Your task to perform on an android device: check data usage Image 0: 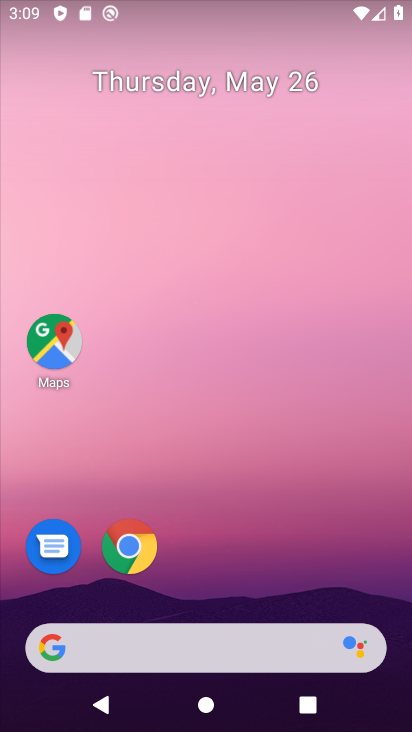
Step 0: drag from (307, 553) to (154, 20)
Your task to perform on an android device: check data usage Image 1: 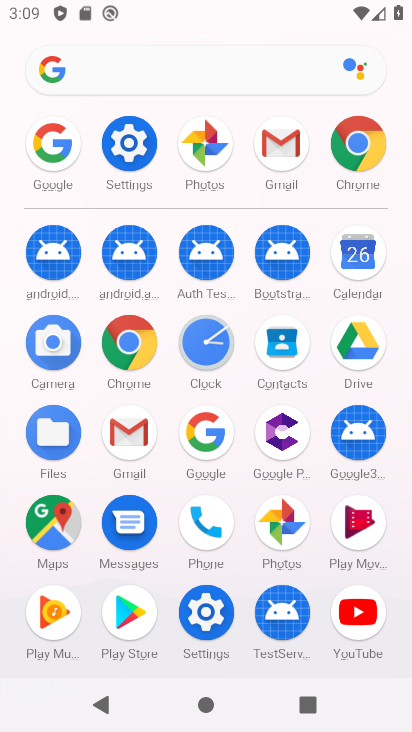
Step 1: click (136, 132)
Your task to perform on an android device: check data usage Image 2: 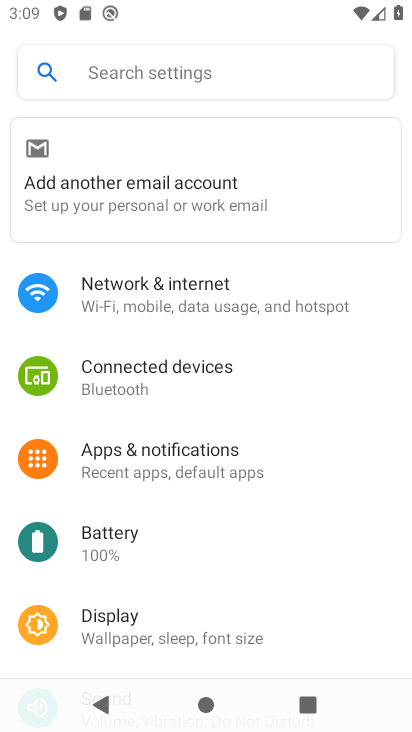
Step 2: drag from (231, 511) to (223, 278)
Your task to perform on an android device: check data usage Image 3: 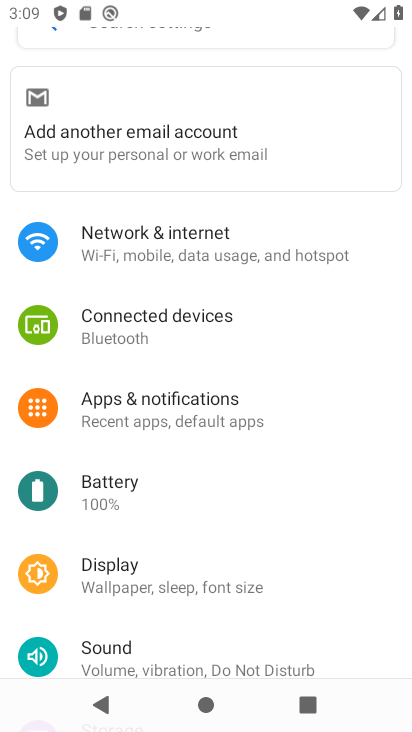
Step 3: click (168, 249)
Your task to perform on an android device: check data usage Image 4: 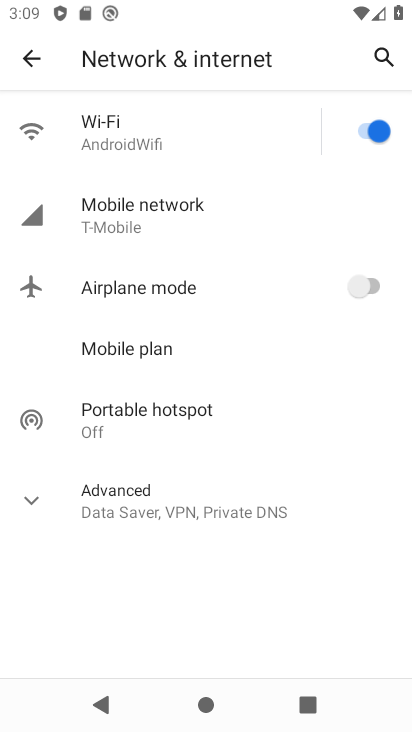
Step 4: click (144, 219)
Your task to perform on an android device: check data usage Image 5: 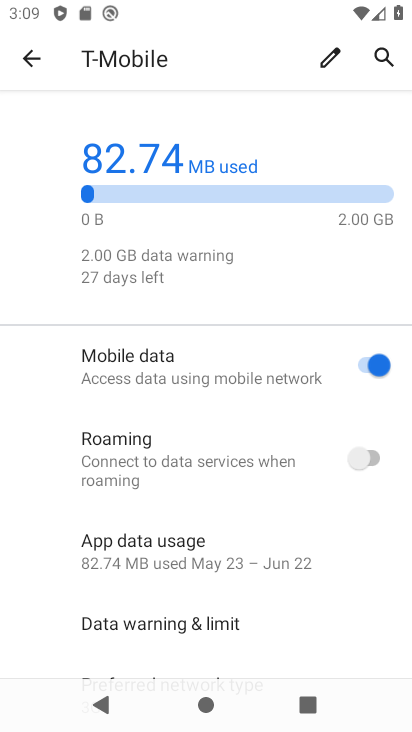
Step 5: task complete